Your task to perform on an android device: Search for Italian restaurants on Maps Image 0: 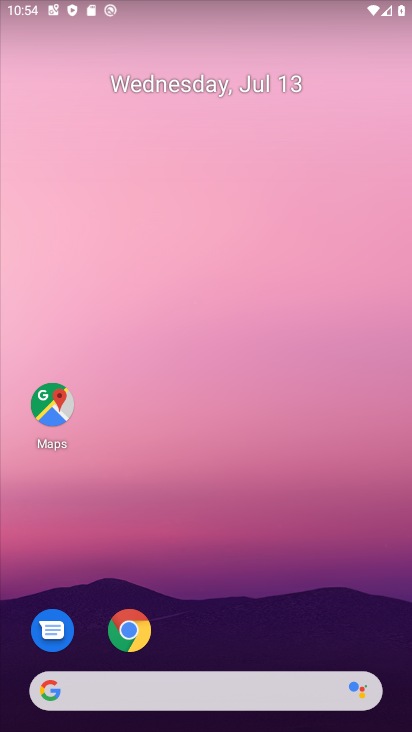
Step 0: drag from (260, 629) to (201, 50)
Your task to perform on an android device: Search for Italian restaurants on Maps Image 1: 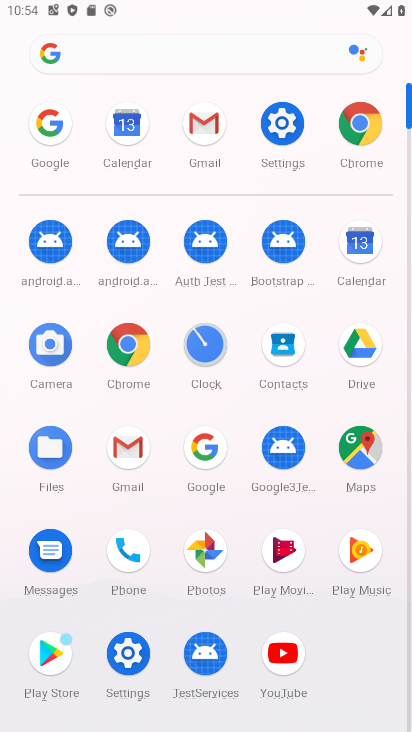
Step 1: click (365, 462)
Your task to perform on an android device: Search for Italian restaurants on Maps Image 2: 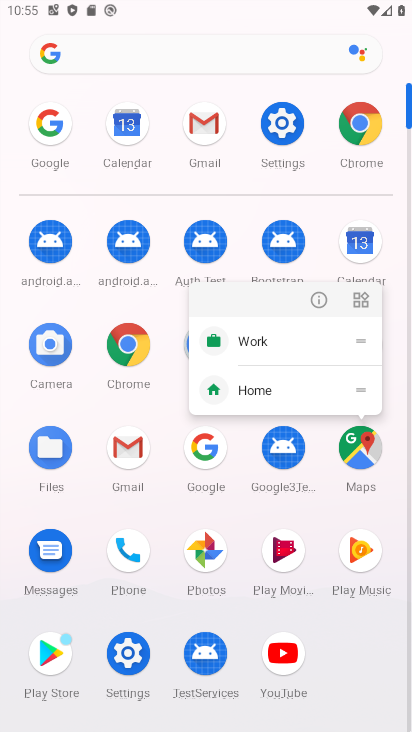
Step 2: click (365, 461)
Your task to perform on an android device: Search for Italian restaurants on Maps Image 3: 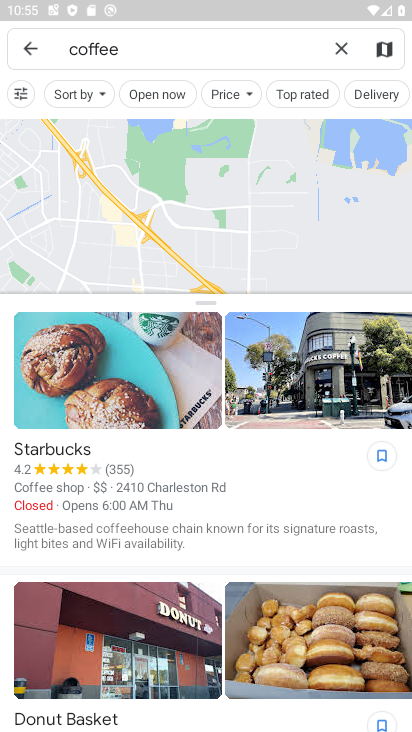
Step 3: click (340, 44)
Your task to perform on an android device: Search for Italian restaurants on Maps Image 4: 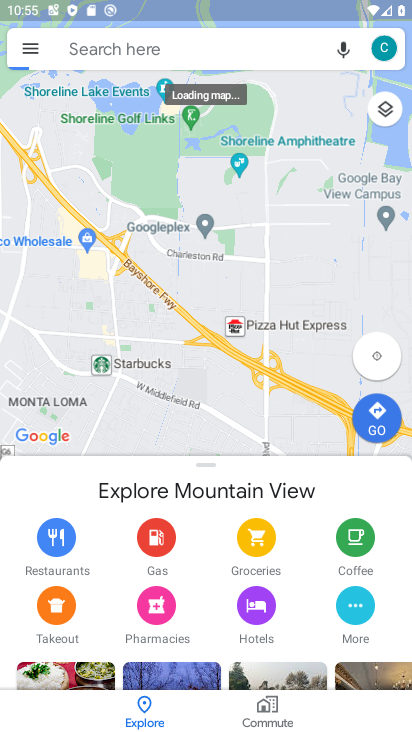
Step 4: click (268, 30)
Your task to perform on an android device: Search for Italian restaurants on Maps Image 5: 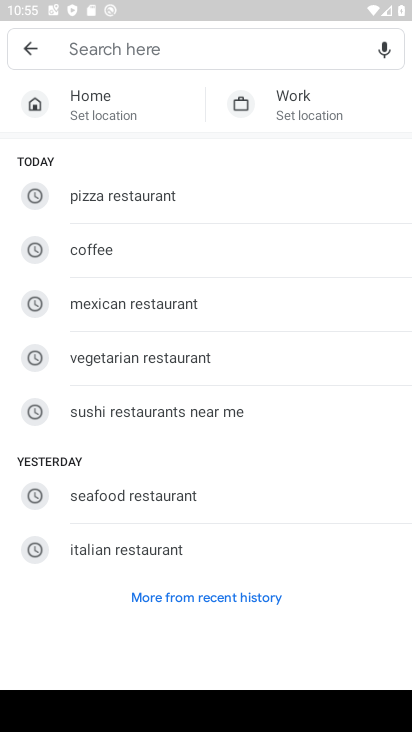
Step 5: click (61, 551)
Your task to perform on an android device: Search for Italian restaurants on Maps Image 6: 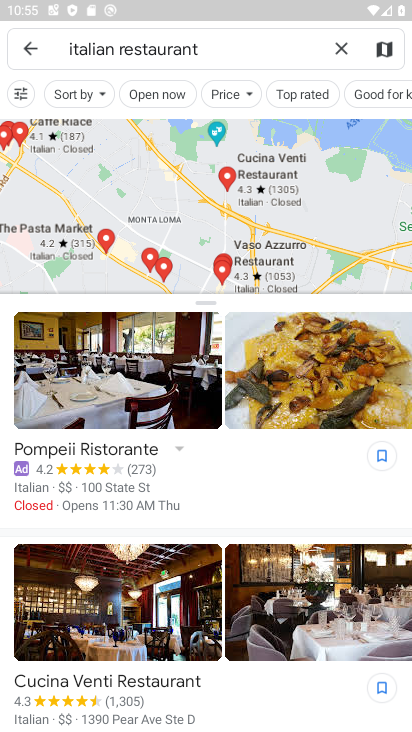
Step 6: task complete